Your task to perform on an android device: Open Google Image 0: 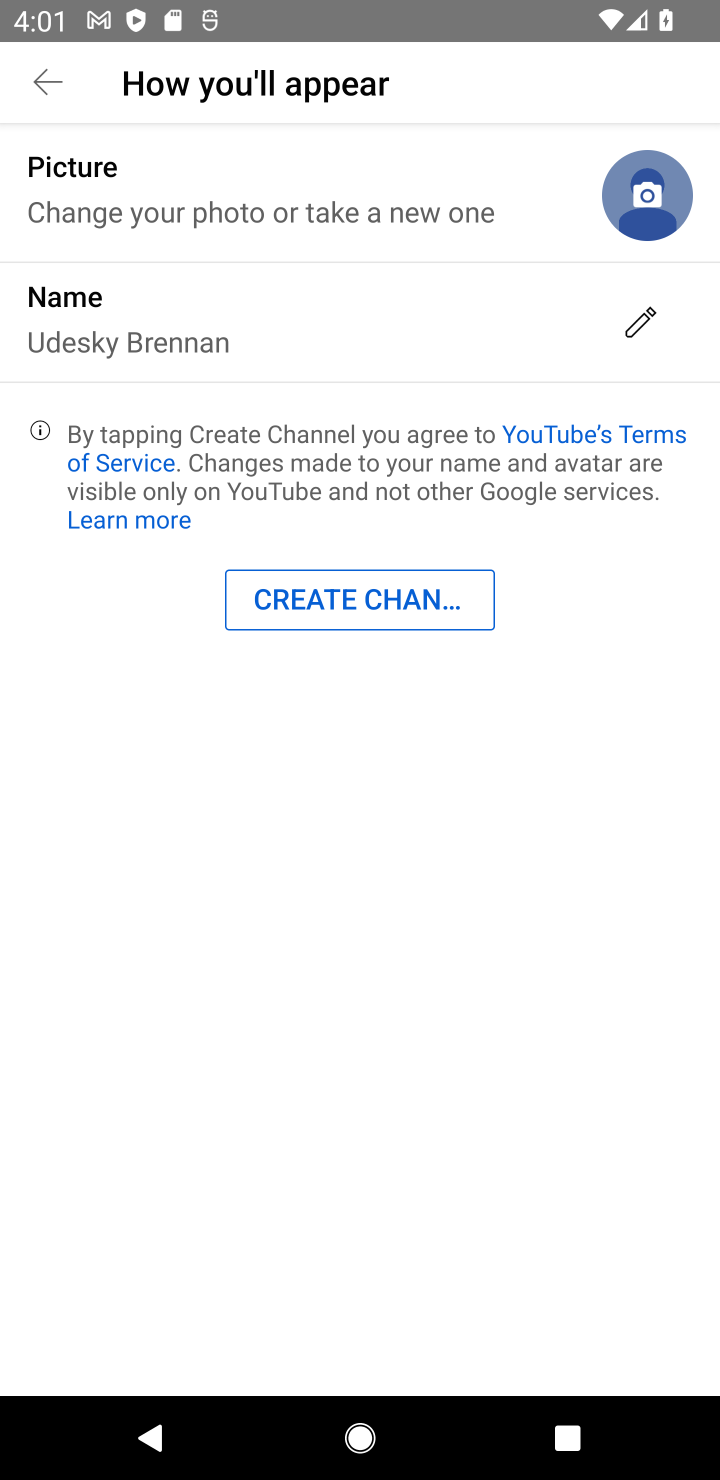
Step 0: press home button
Your task to perform on an android device: Open Google Image 1: 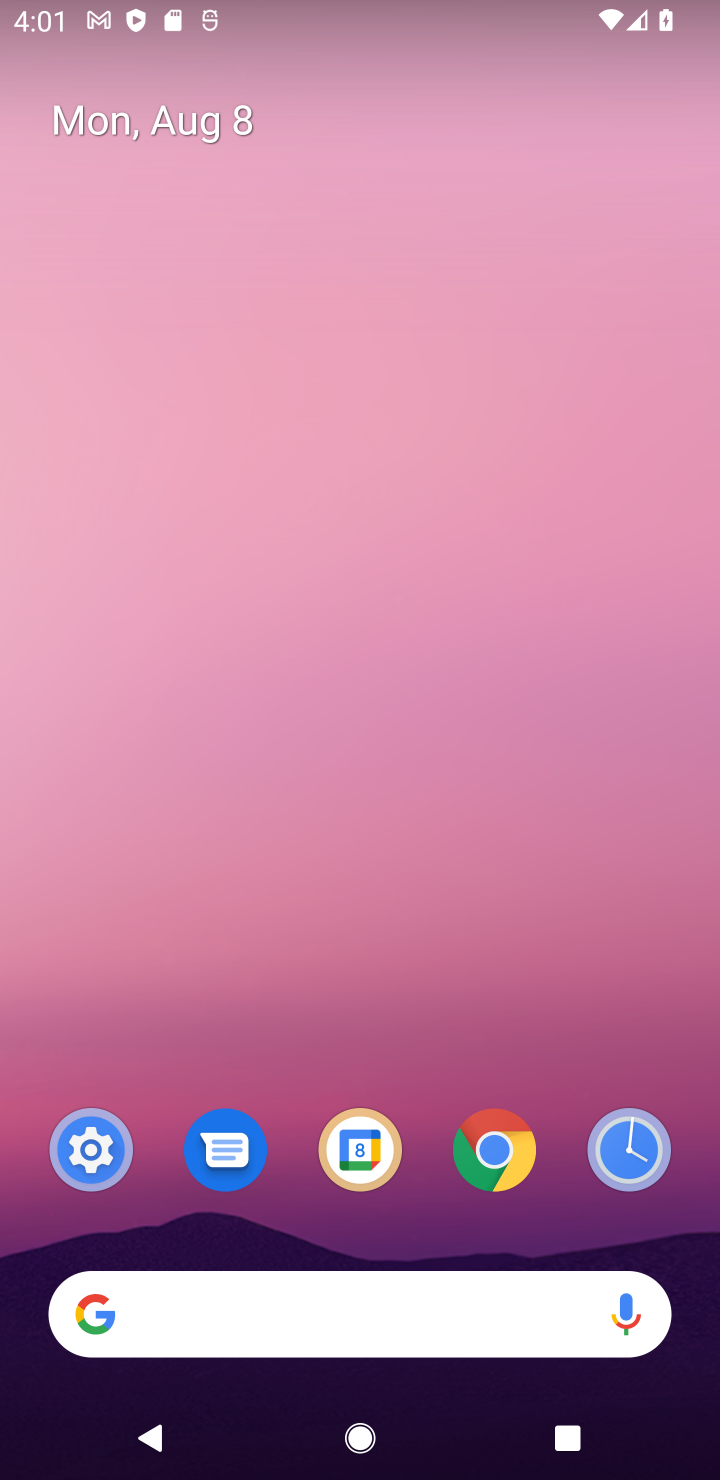
Step 1: click (480, 1188)
Your task to perform on an android device: Open Google Image 2: 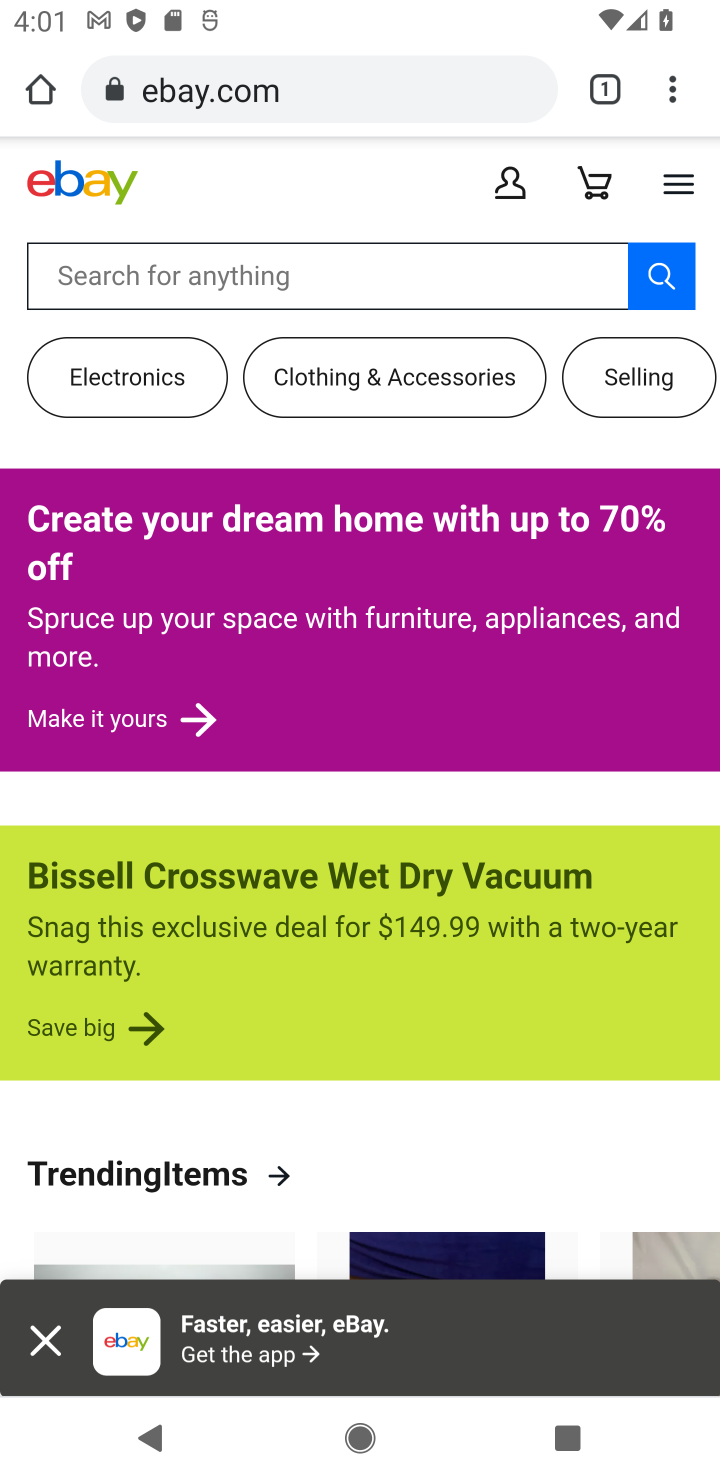
Step 2: click (341, 115)
Your task to perform on an android device: Open Google Image 3: 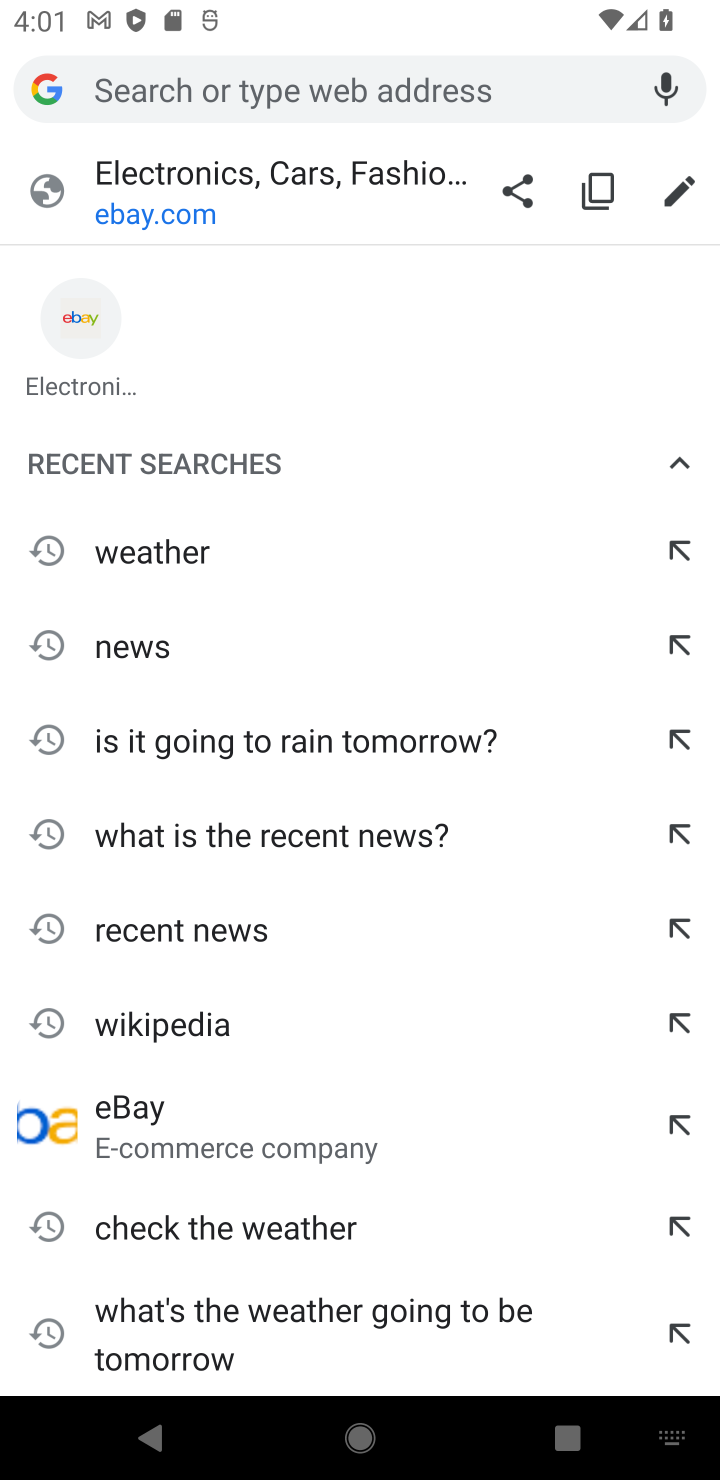
Step 3: type "google"
Your task to perform on an android device: Open Google Image 4: 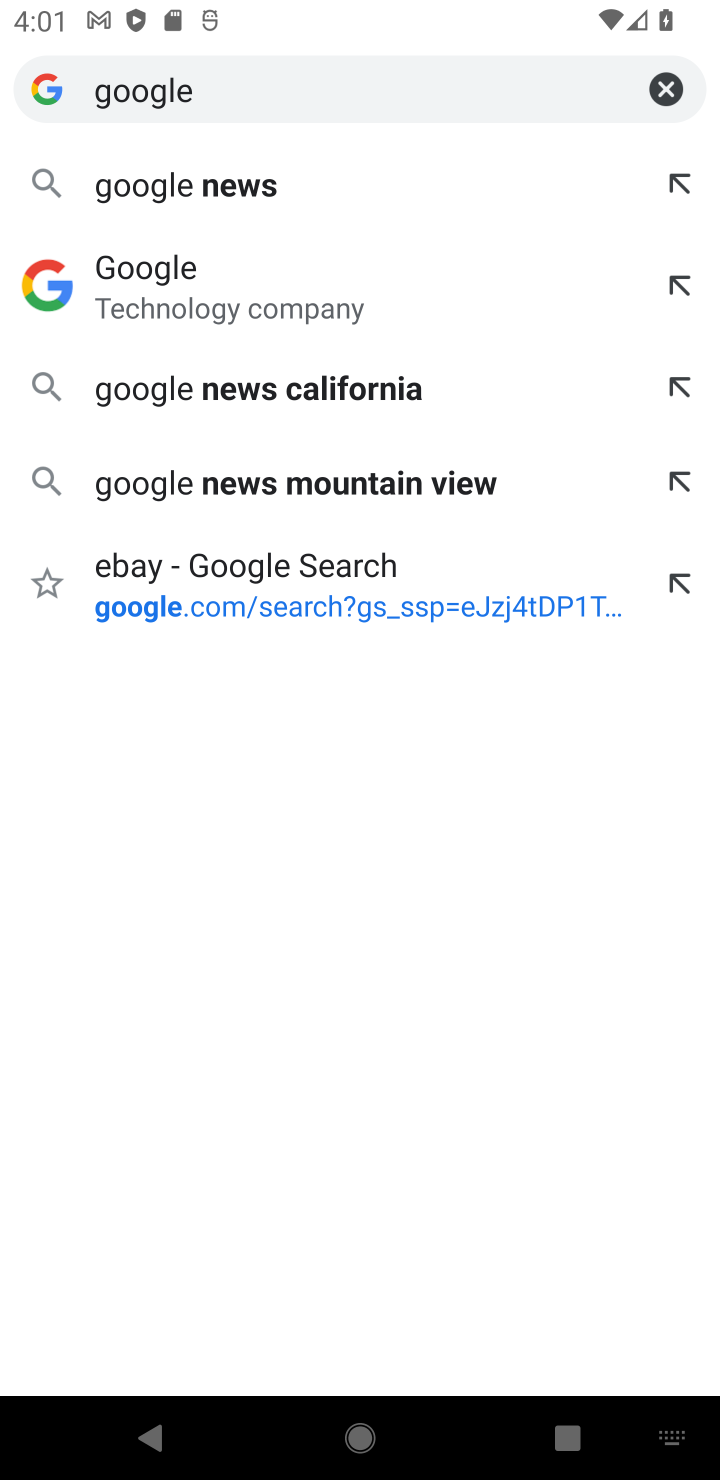
Step 4: click (249, 184)
Your task to perform on an android device: Open Google Image 5: 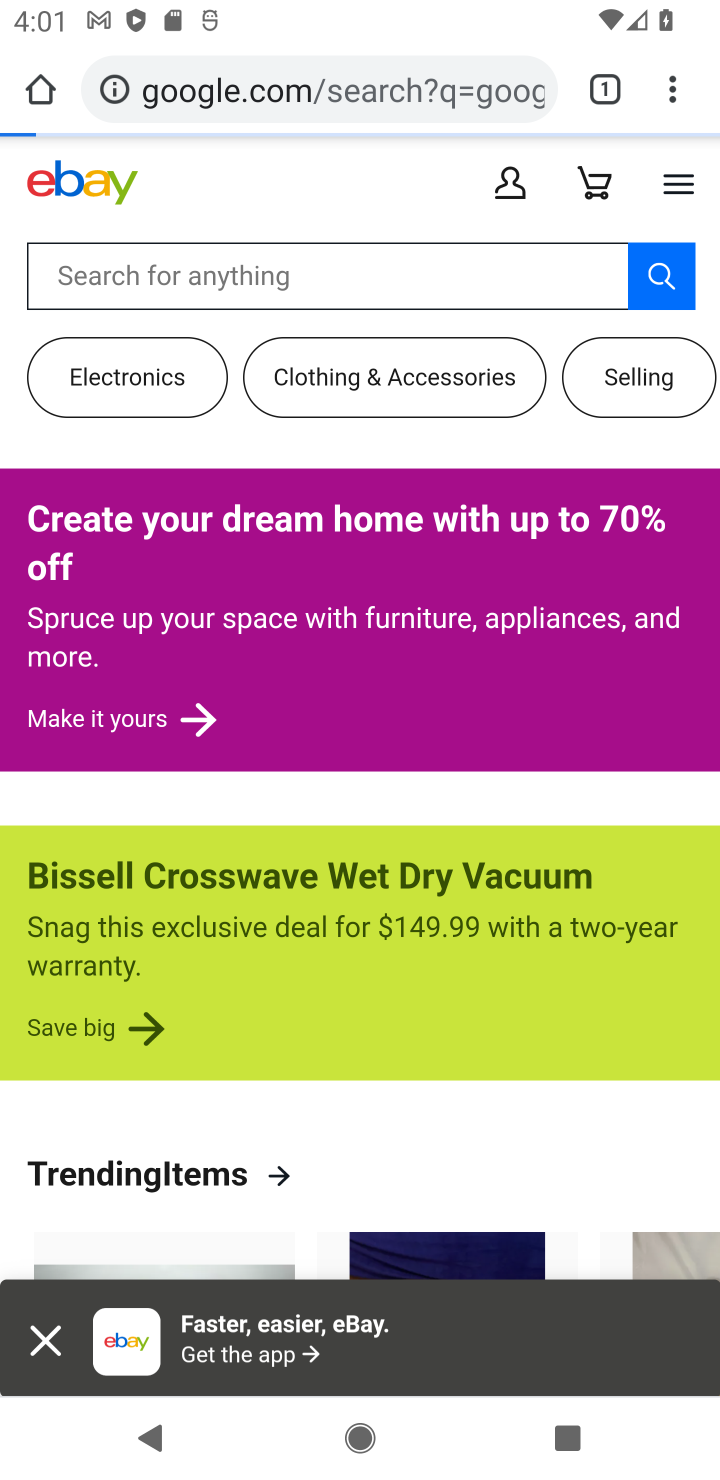
Step 5: task complete